Your task to perform on an android device: open app "Venmo" (install if not already installed), go to login, and select forgot password Image 0: 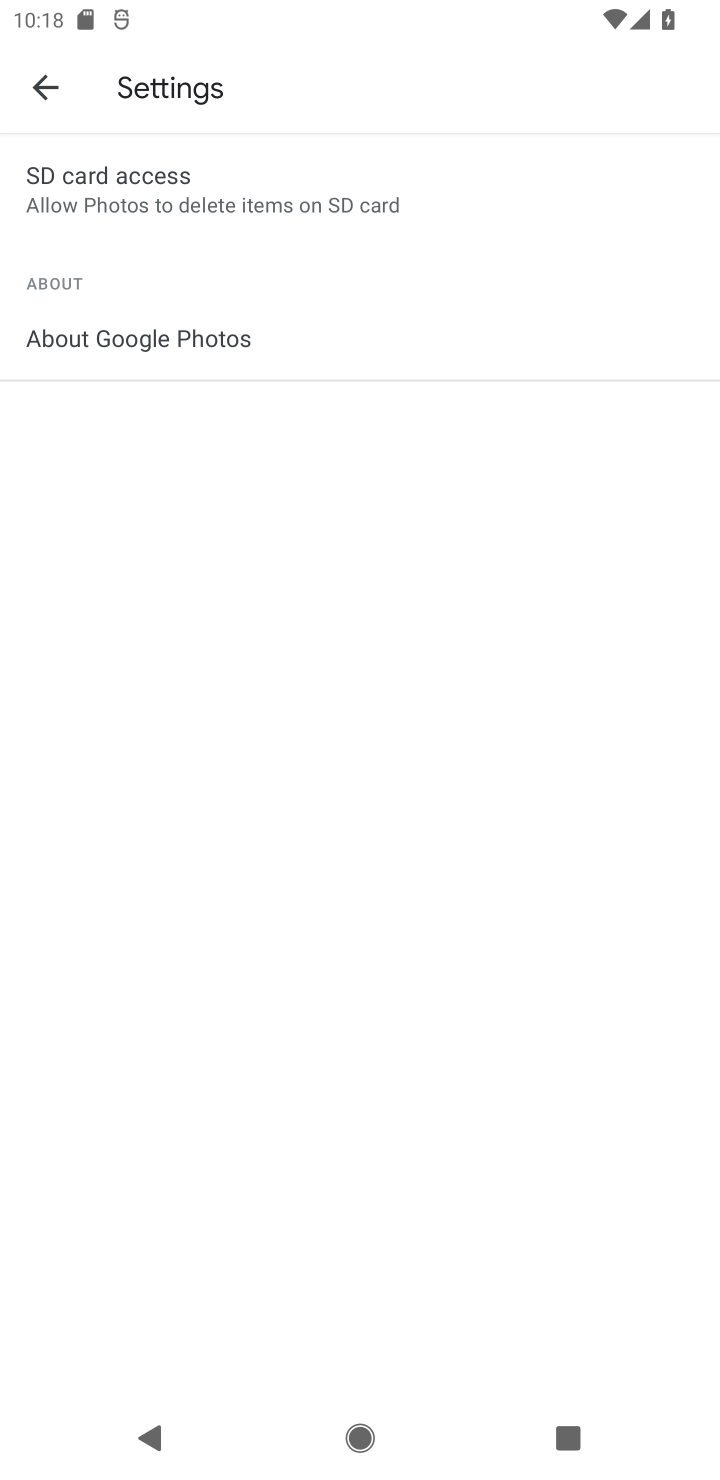
Step 0: press home button
Your task to perform on an android device: open app "Venmo" (install if not already installed), go to login, and select forgot password Image 1: 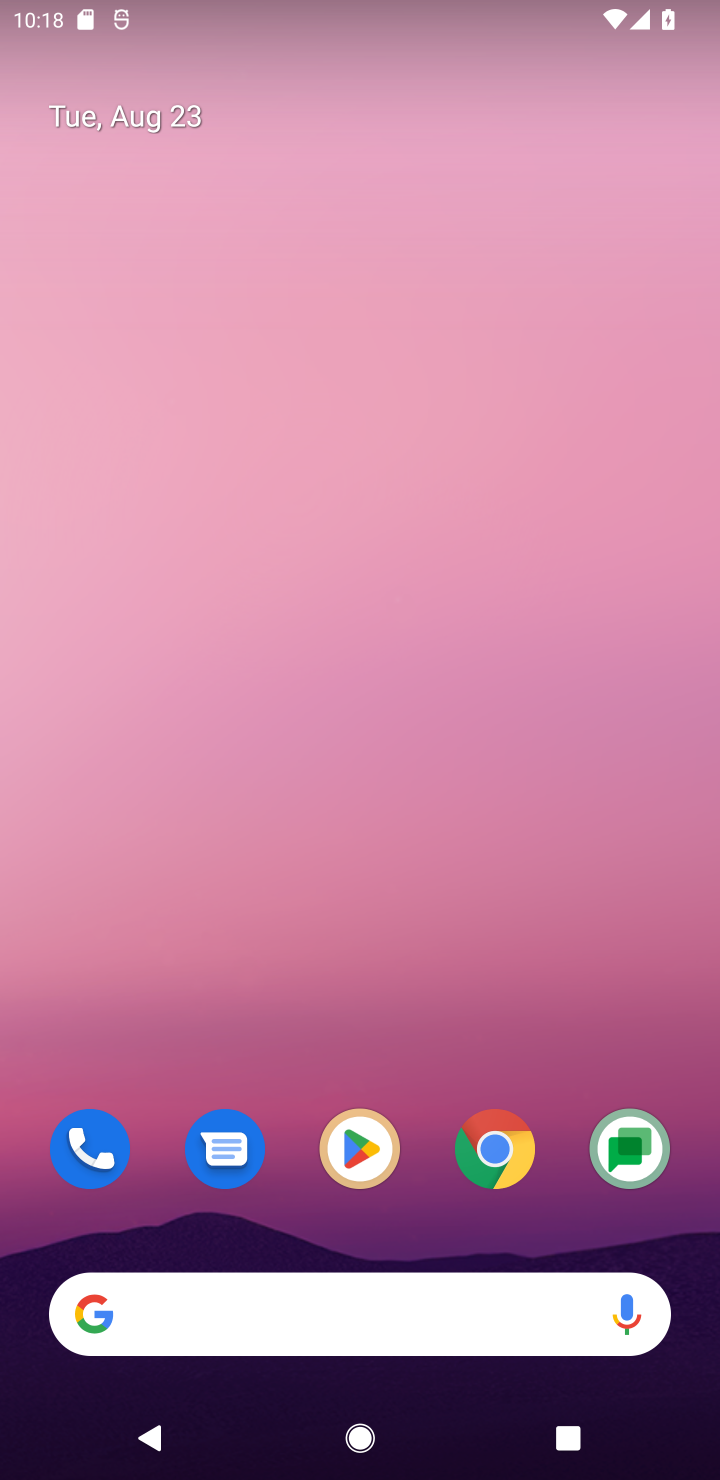
Step 1: click (363, 1156)
Your task to perform on an android device: open app "Venmo" (install if not already installed), go to login, and select forgot password Image 2: 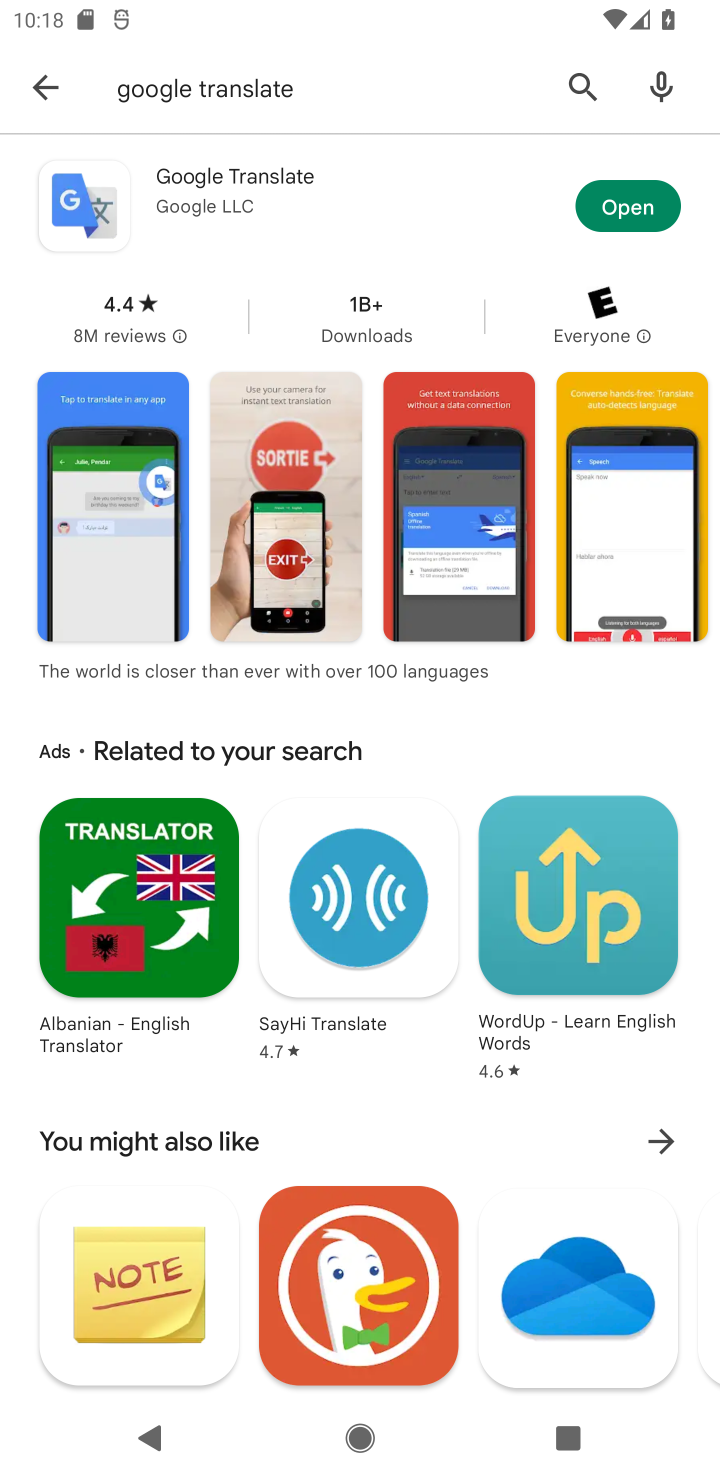
Step 2: click (563, 105)
Your task to perform on an android device: open app "Venmo" (install if not already installed), go to login, and select forgot password Image 3: 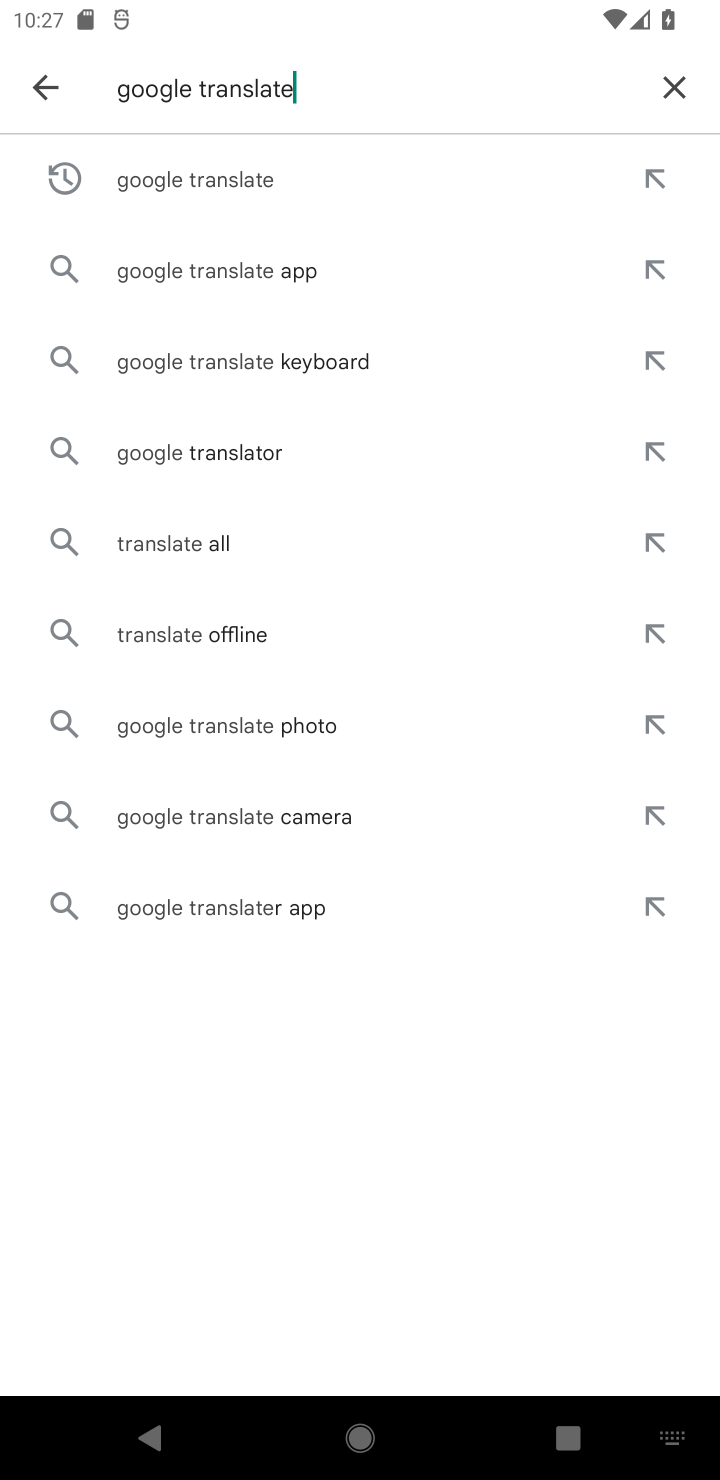
Step 3: click (445, 165)
Your task to perform on an android device: open app "Venmo" (install if not already installed), go to login, and select forgot password Image 4: 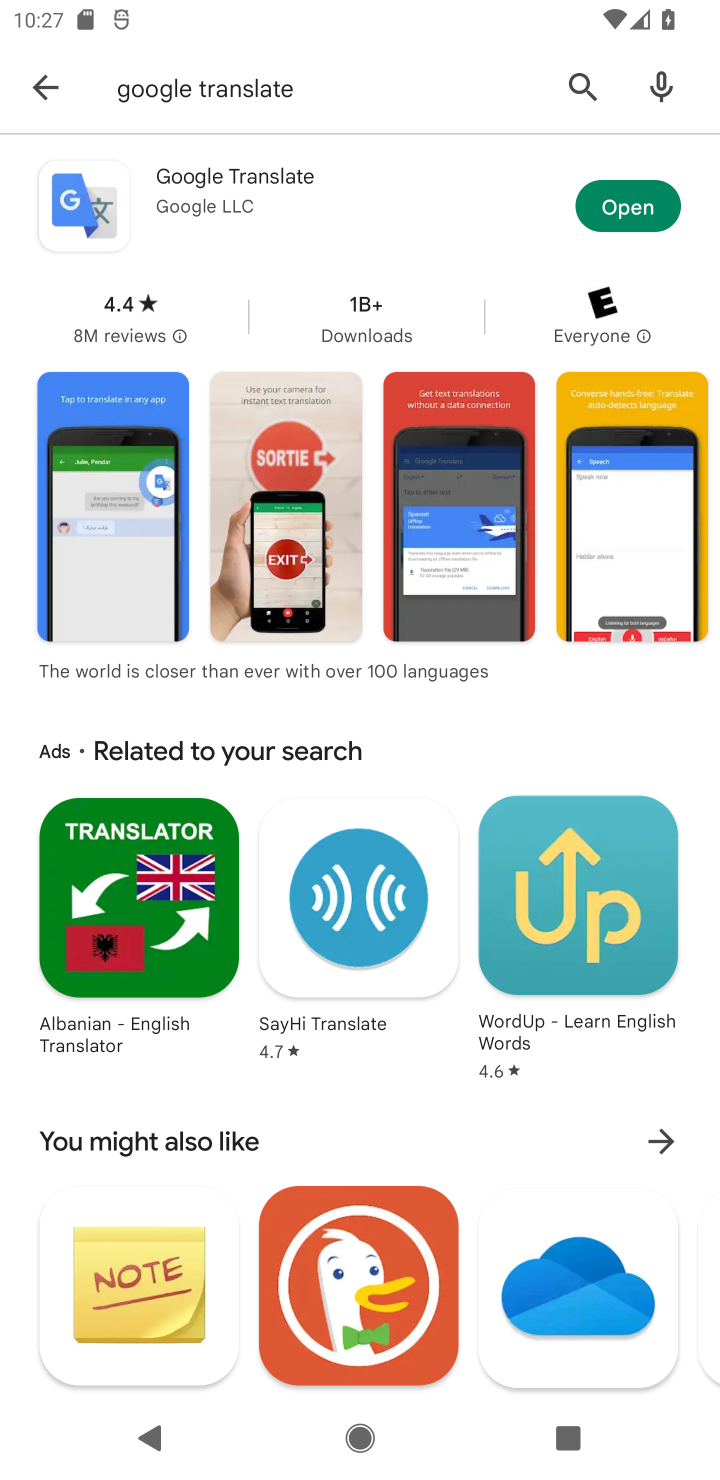
Step 4: task complete